Your task to perform on an android device: Empty the shopping cart on costco. Add apple airpods pro to the cart on costco Image 0: 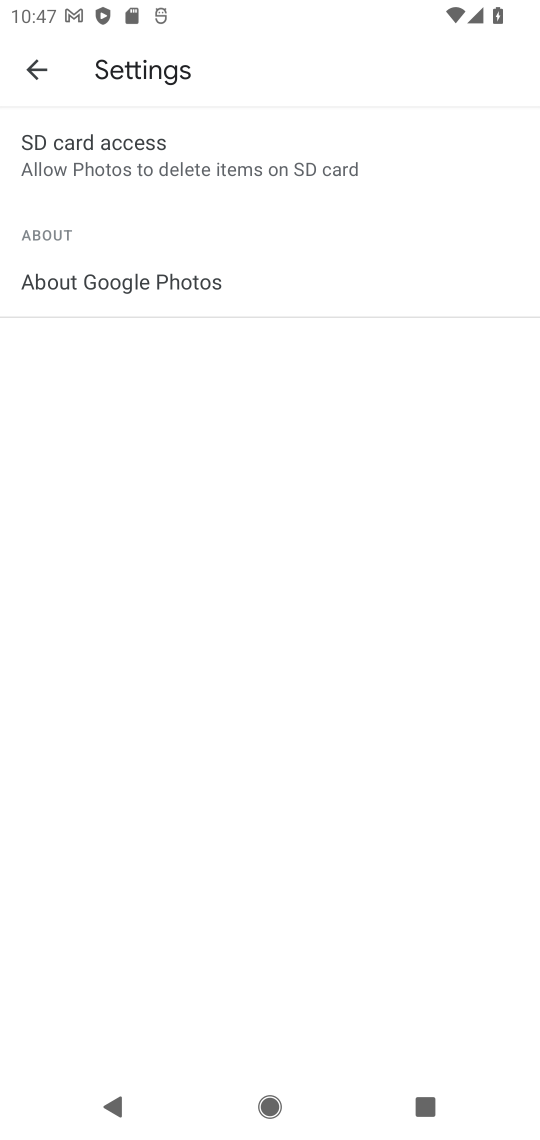
Step 0: press home button
Your task to perform on an android device: Empty the shopping cart on costco. Add apple airpods pro to the cart on costco Image 1: 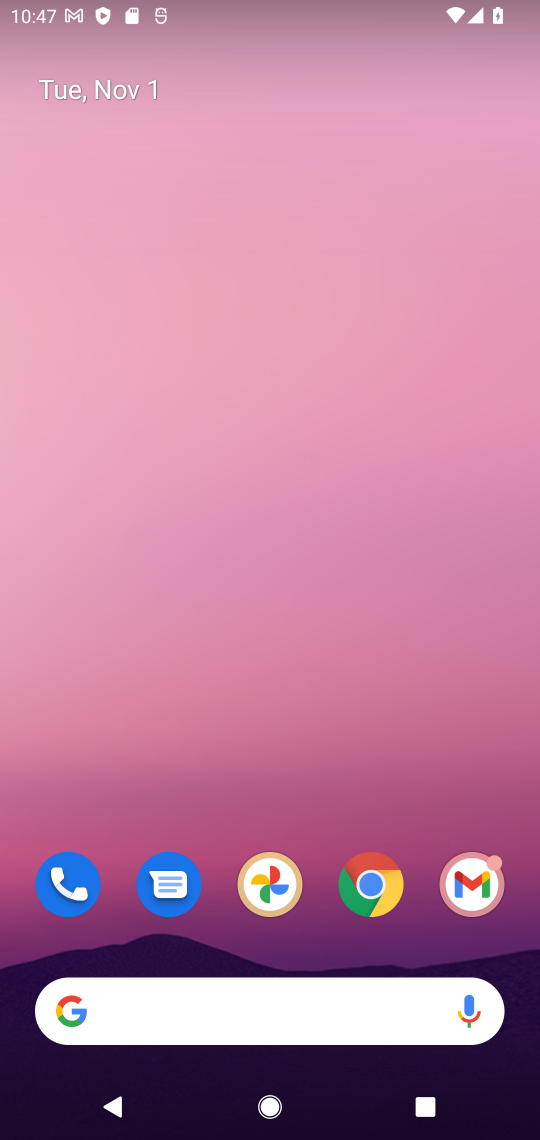
Step 1: click (375, 875)
Your task to perform on an android device: Empty the shopping cart on costco. Add apple airpods pro to the cart on costco Image 2: 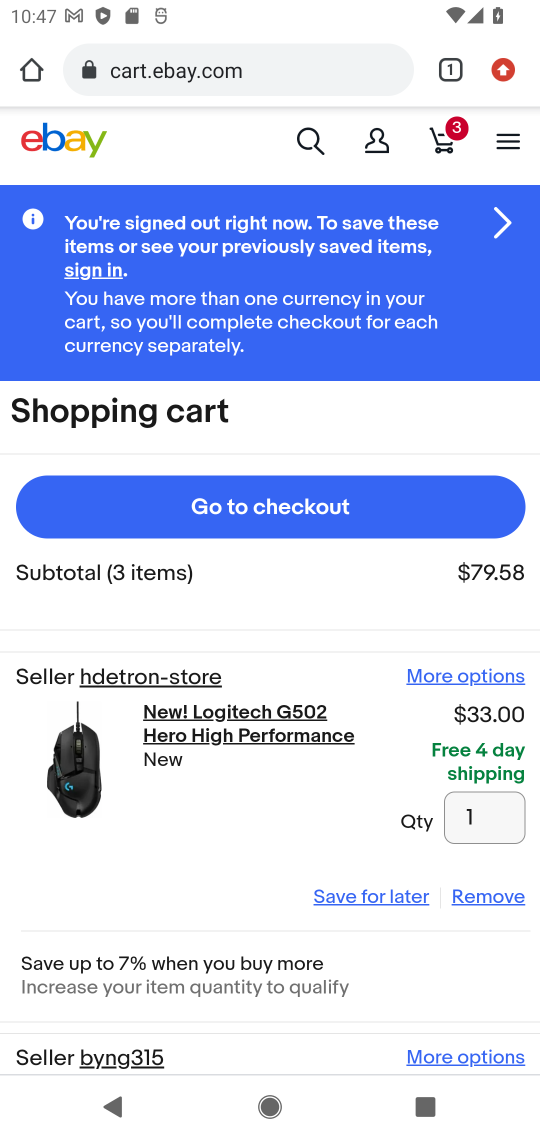
Step 2: click (264, 72)
Your task to perform on an android device: Empty the shopping cart on costco. Add apple airpods pro to the cart on costco Image 3: 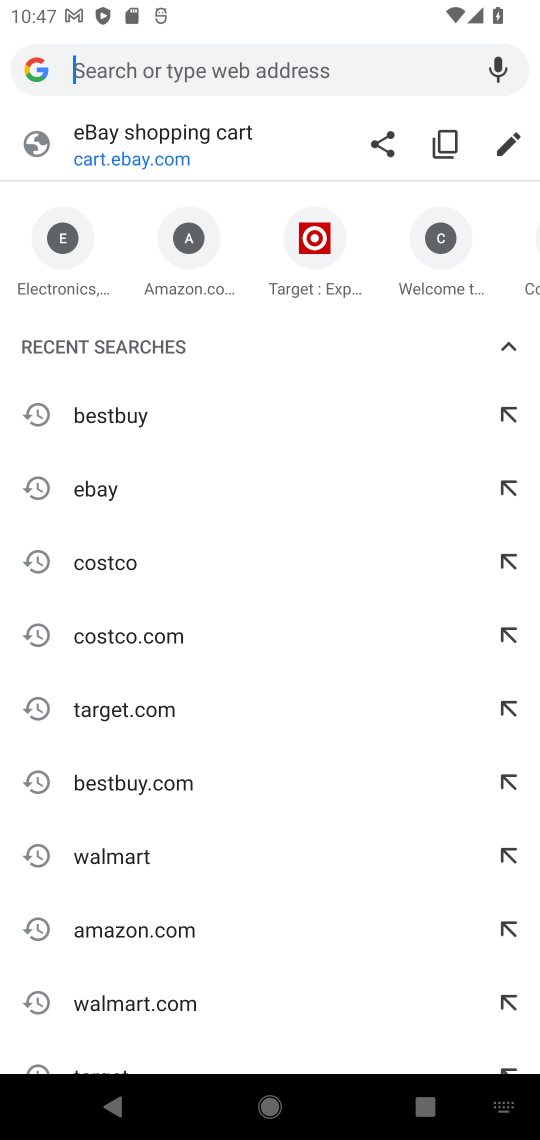
Step 3: type "costco"
Your task to perform on an android device: Empty the shopping cart on costco. Add apple airpods pro to the cart on costco Image 4: 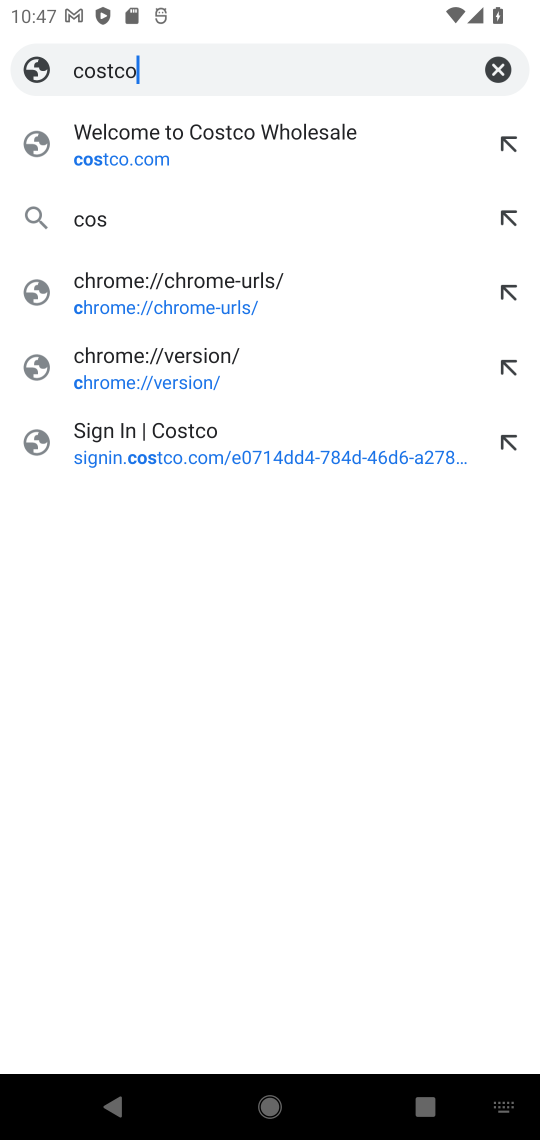
Step 4: type ""
Your task to perform on an android device: Empty the shopping cart on costco. Add apple airpods pro to the cart on costco Image 5: 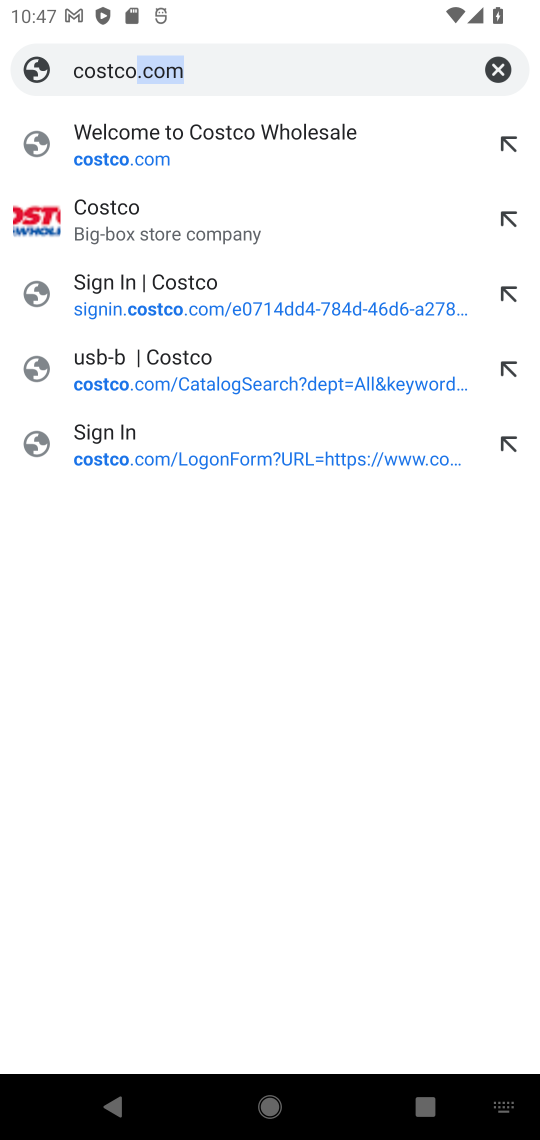
Step 5: press enter
Your task to perform on an android device: Empty the shopping cart on costco. Add apple airpods pro to the cart on costco Image 6: 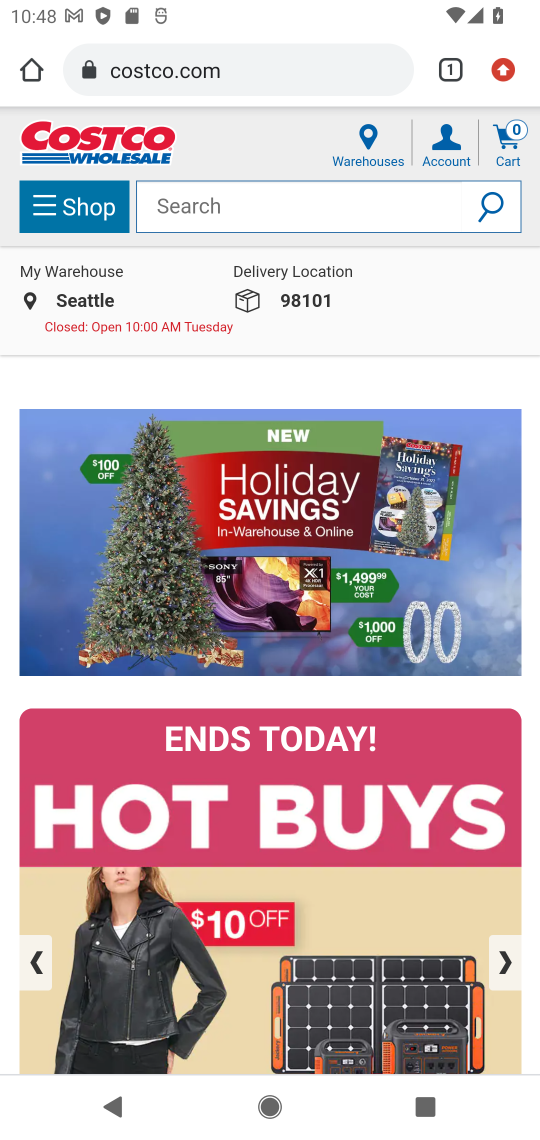
Step 6: click (513, 151)
Your task to perform on an android device: Empty the shopping cart on costco. Add apple airpods pro to the cart on costco Image 7: 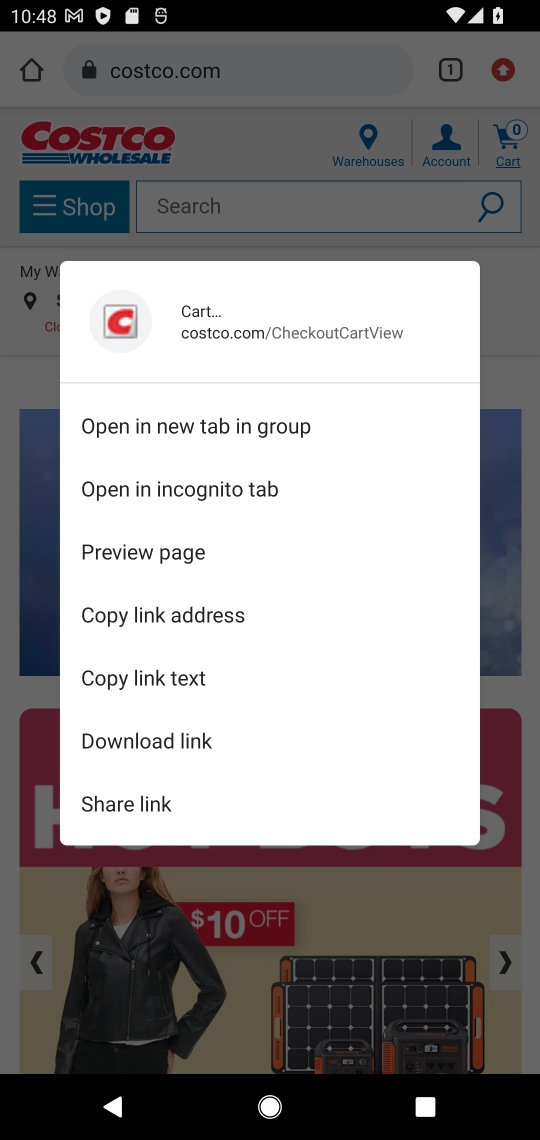
Step 7: click (528, 638)
Your task to perform on an android device: Empty the shopping cart on costco. Add apple airpods pro to the cart on costco Image 8: 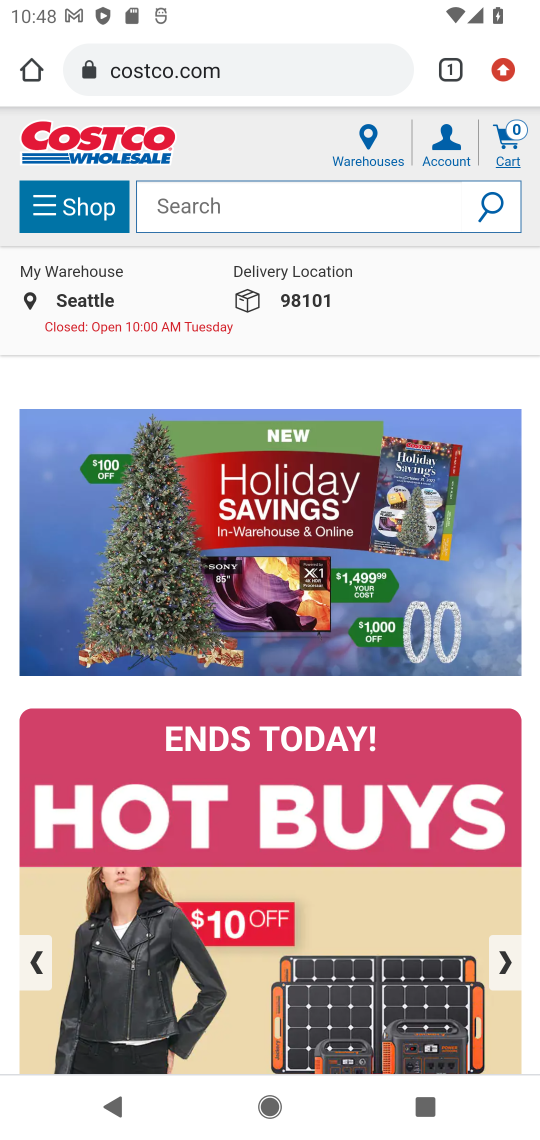
Step 8: click (504, 142)
Your task to perform on an android device: Empty the shopping cart on costco. Add apple airpods pro to the cart on costco Image 9: 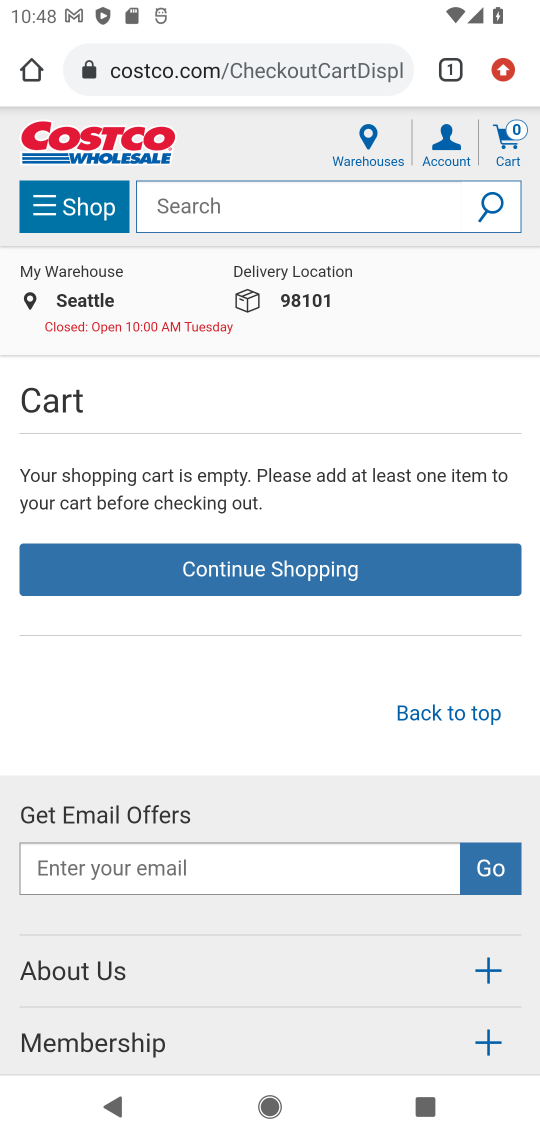
Step 9: click (278, 203)
Your task to perform on an android device: Empty the shopping cart on costco. Add apple airpods pro to the cart on costco Image 10: 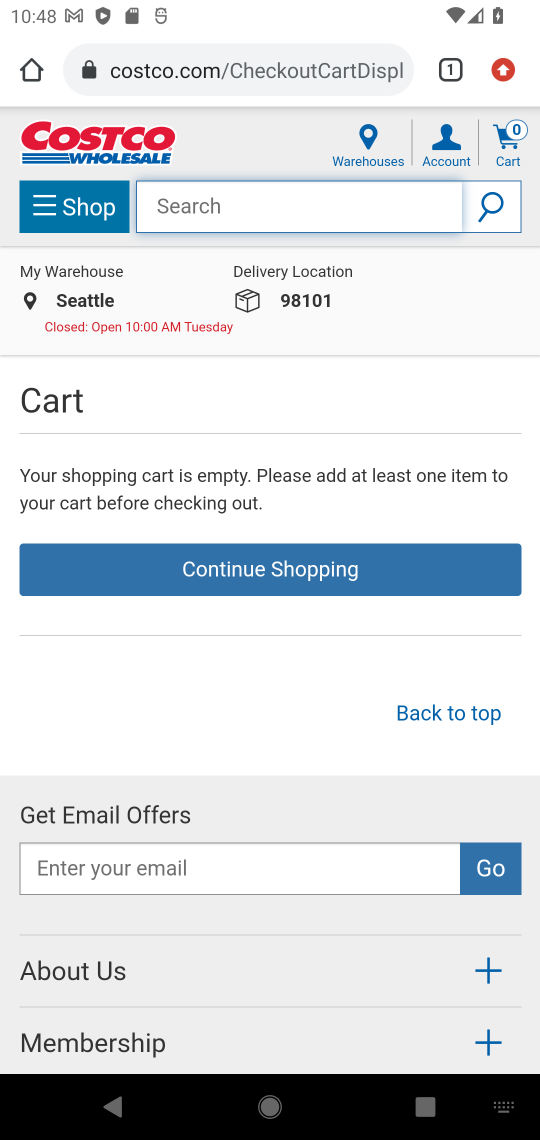
Step 10: type "apple airpods pro"
Your task to perform on an android device: Empty the shopping cart on costco. Add apple airpods pro to the cart on costco Image 11: 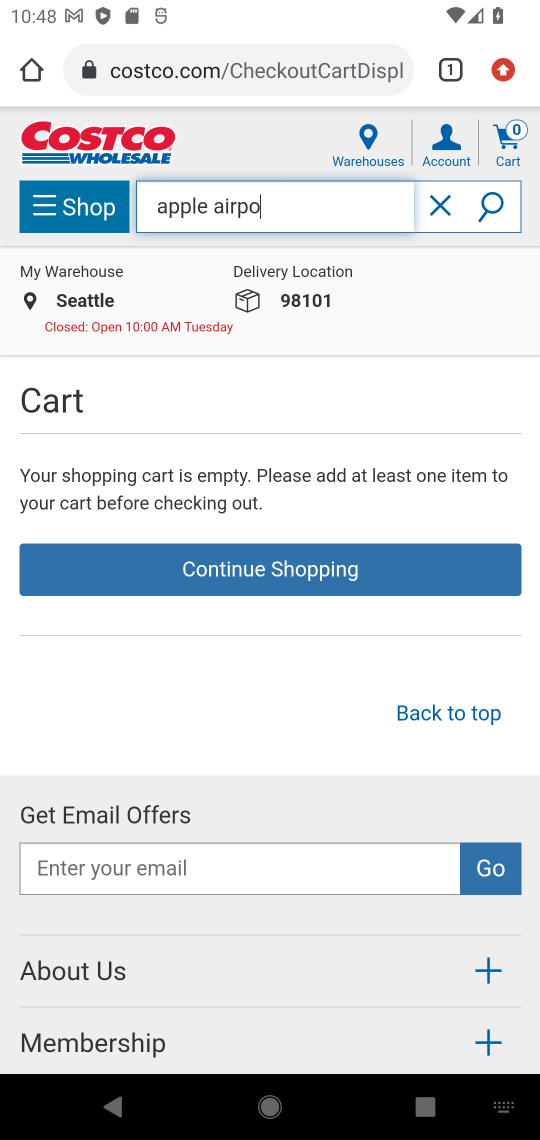
Step 11: type ""
Your task to perform on an android device: Empty the shopping cart on costco. Add apple airpods pro to the cart on costco Image 12: 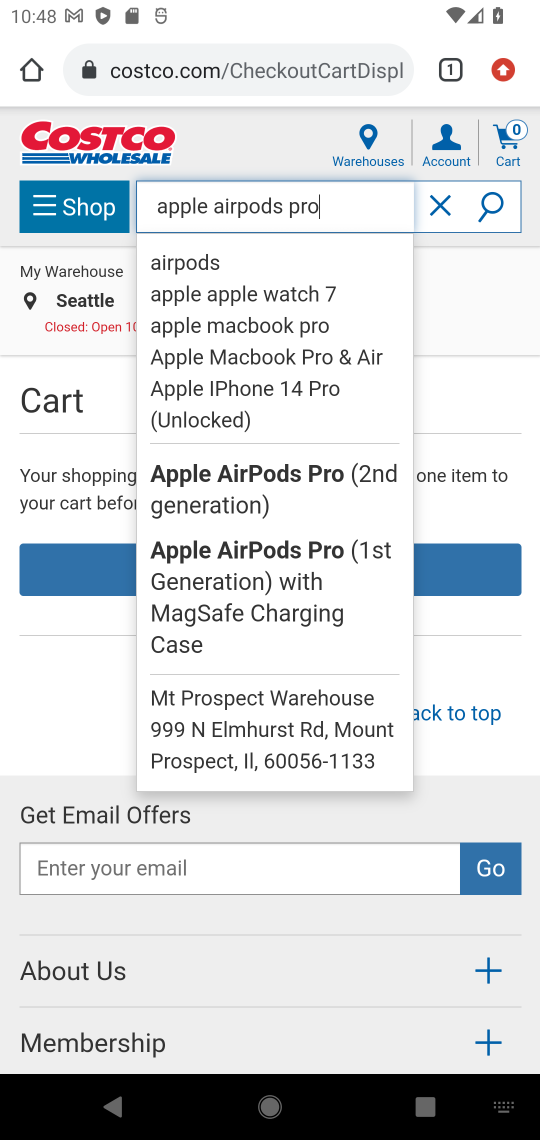
Step 12: press enter
Your task to perform on an android device: Empty the shopping cart on costco. Add apple airpods pro to the cart on costco Image 13: 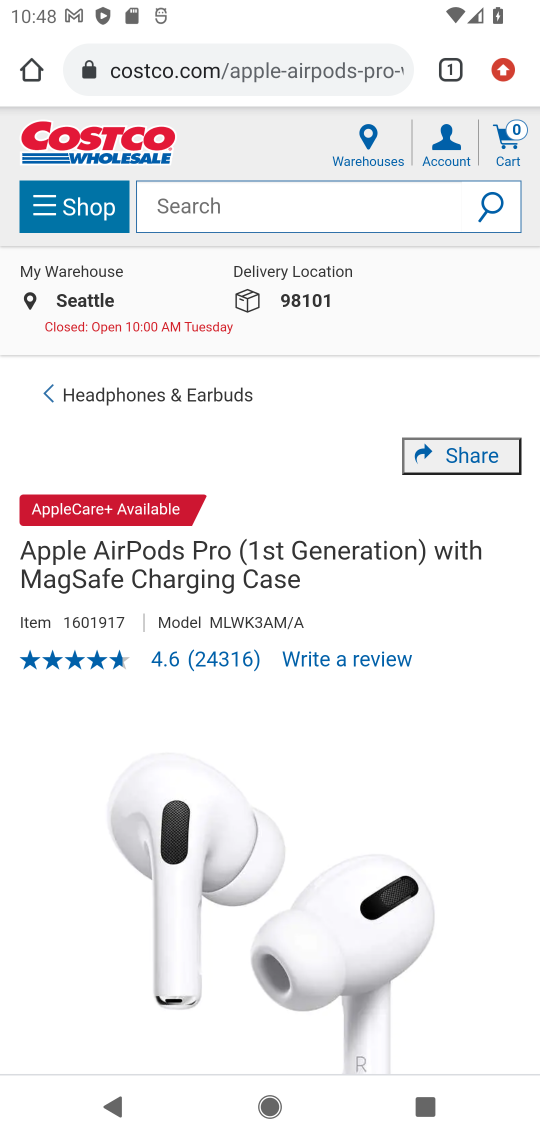
Step 13: drag from (223, 791) to (183, 268)
Your task to perform on an android device: Empty the shopping cart on costco. Add apple airpods pro to the cart on costco Image 14: 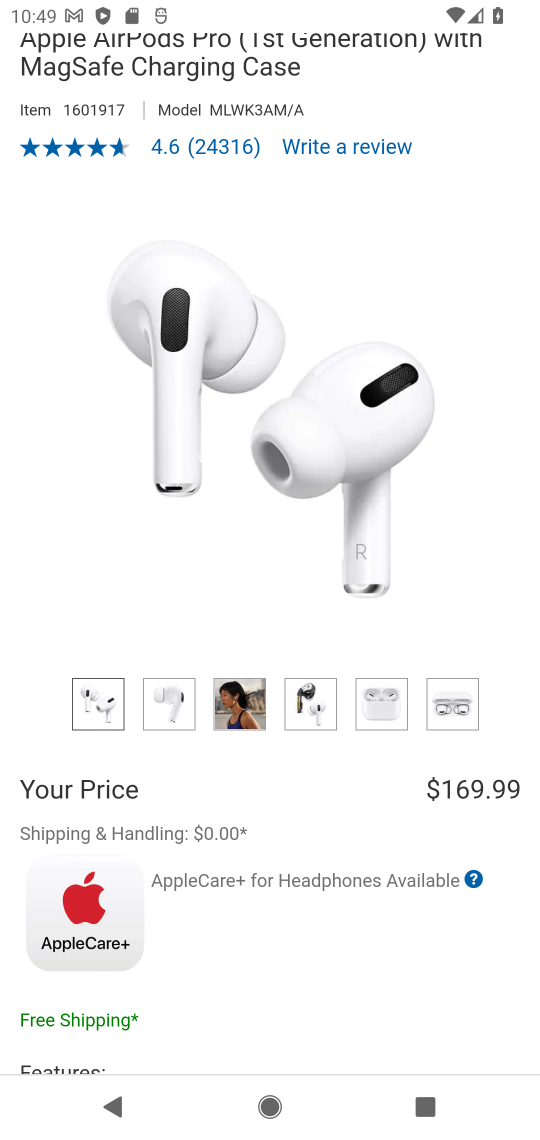
Step 14: drag from (361, 957) to (320, 341)
Your task to perform on an android device: Empty the shopping cart on costco. Add apple airpods pro to the cart on costco Image 15: 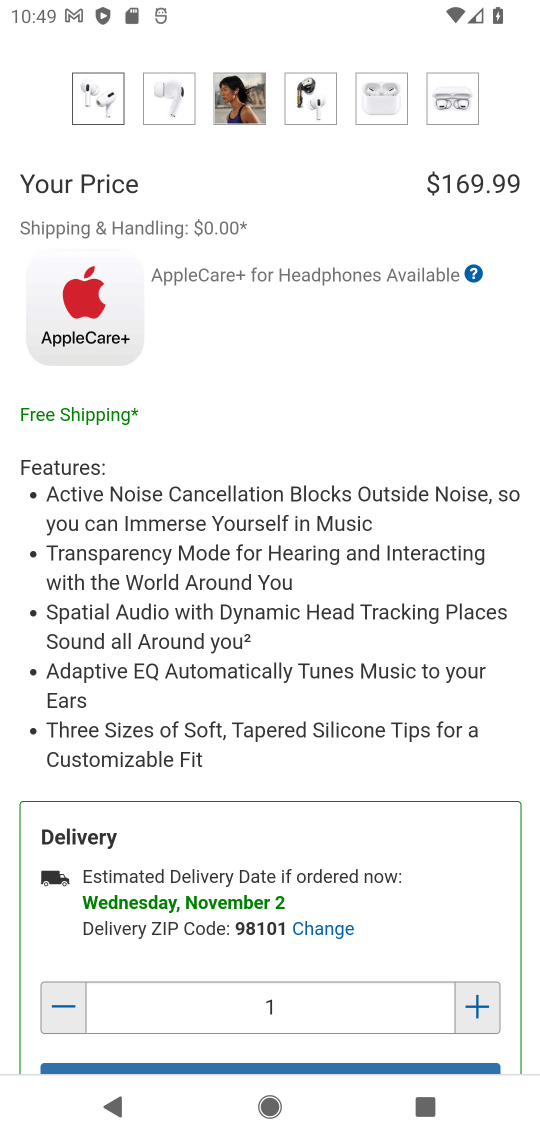
Step 15: drag from (410, 917) to (364, 593)
Your task to perform on an android device: Empty the shopping cart on costco. Add apple airpods pro to the cart on costco Image 16: 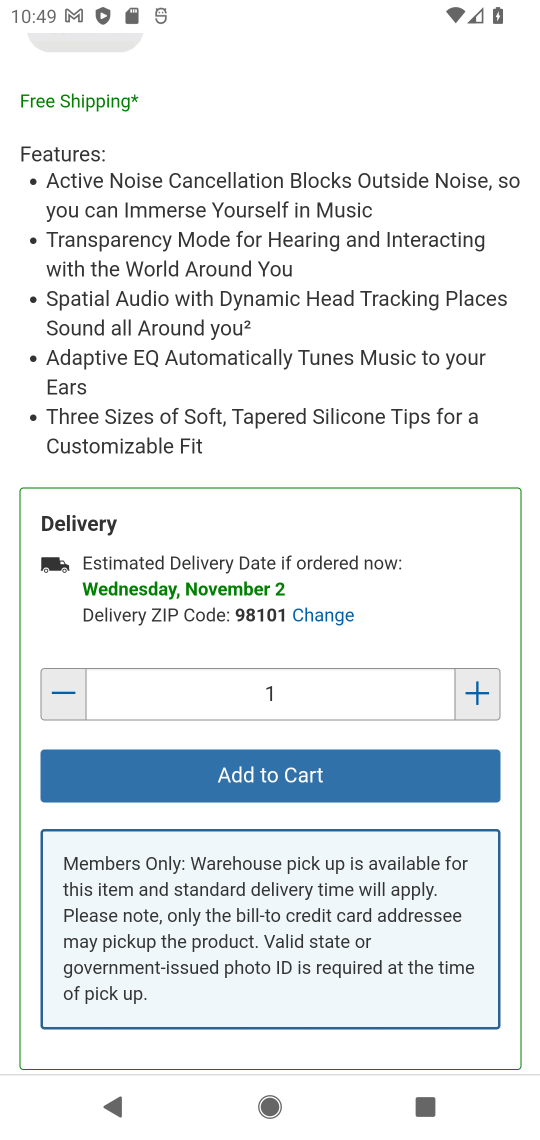
Step 16: click (382, 780)
Your task to perform on an android device: Empty the shopping cart on costco. Add apple airpods pro to the cart on costco Image 17: 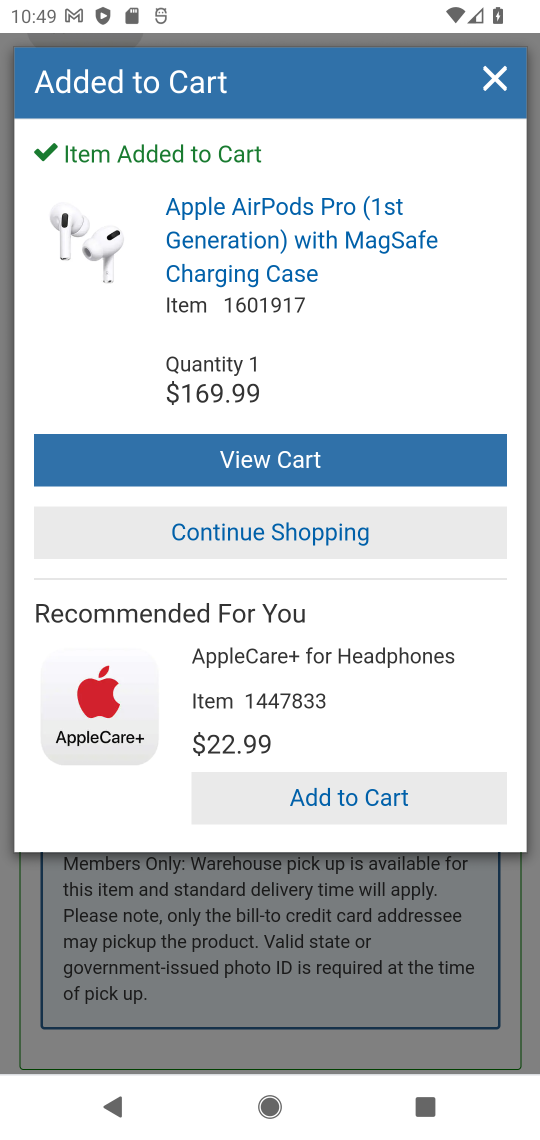
Step 17: click (352, 461)
Your task to perform on an android device: Empty the shopping cart on costco. Add apple airpods pro to the cart on costco Image 18: 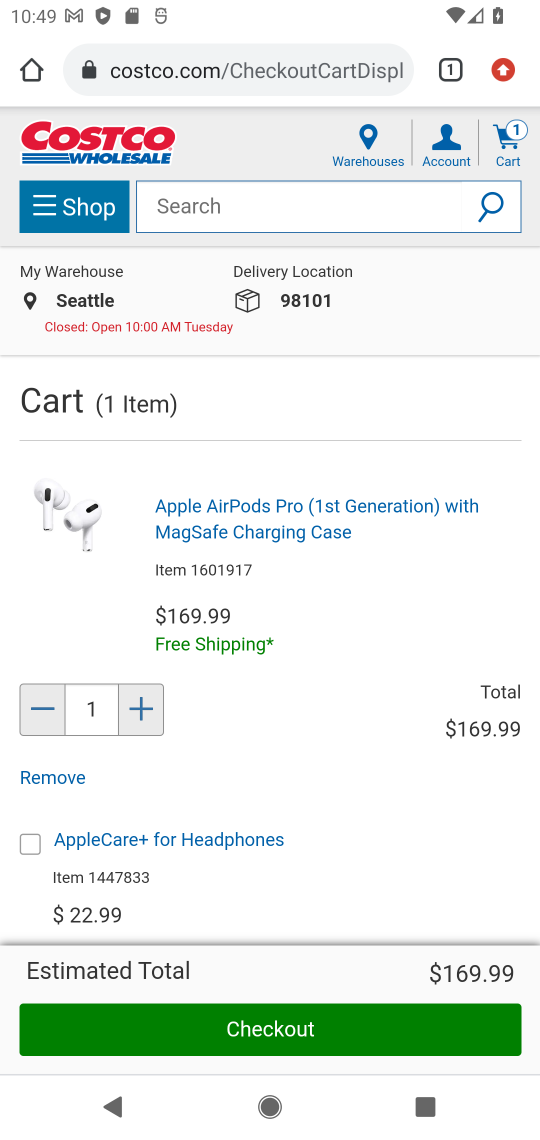
Step 18: task complete